Your task to perform on an android device: Find coffee shops on Maps Image 0: 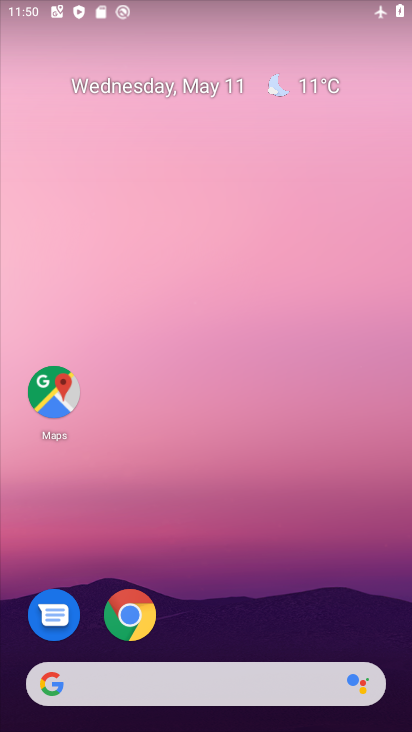
Step 0: click (53, 387)
Your task to perform on an android device: Find coffee shops on Maps Image 1: 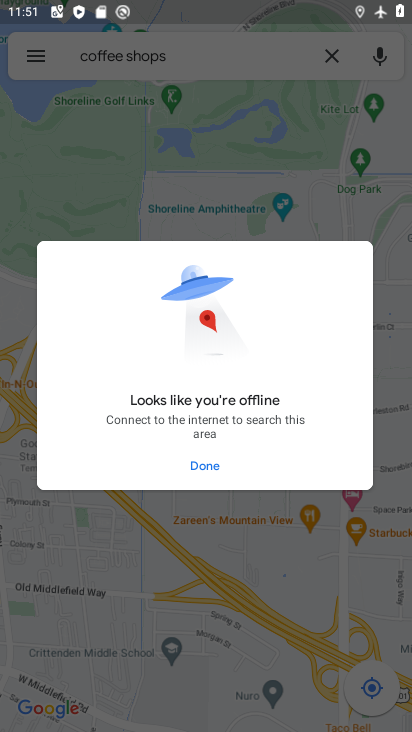
Step 1: click (197, 469)
Your task to perform on an android device: Find coffee shops on Maps Image 2: 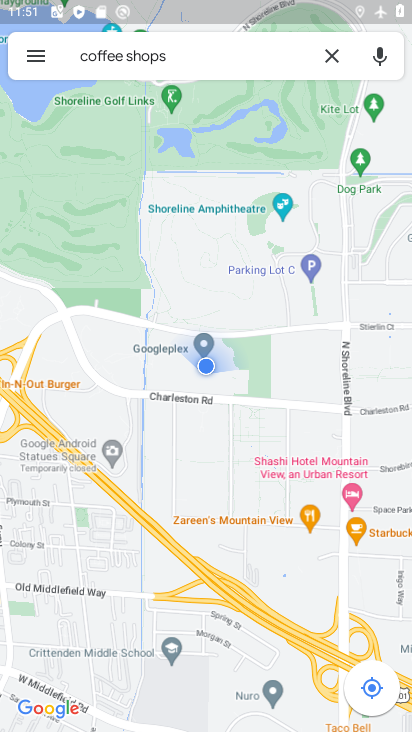
Step 2: press enter
Your task to perform on an android device: Find coffee shops on Maps Image 3: 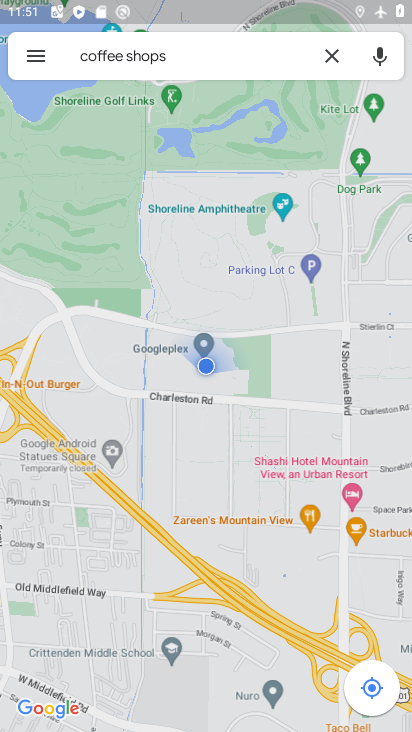
Step 3: click (271, 55)
Your task to perform on an android device: Find coffee shops on Maps Image 4: 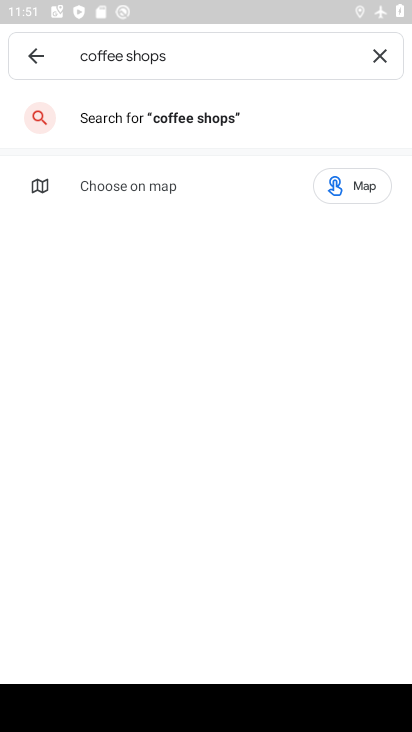
Step 4: click (187, 114)
Your task to perform on an android device: Find coffee shops on Maps Image 5: 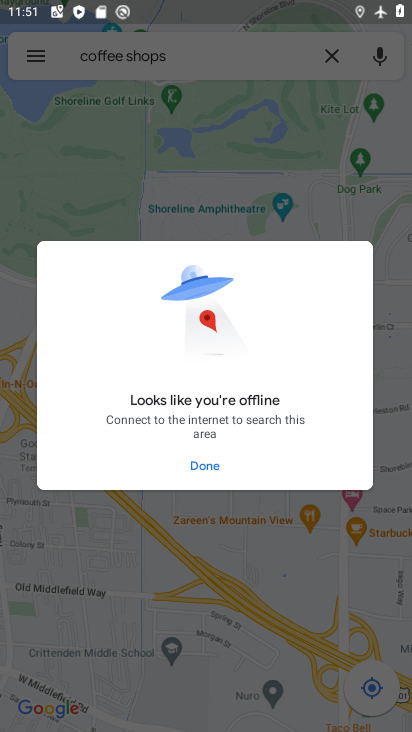
Step 5: task complete